Your task to perform on an android device: find snoozed emails in the gmail app Image 0: 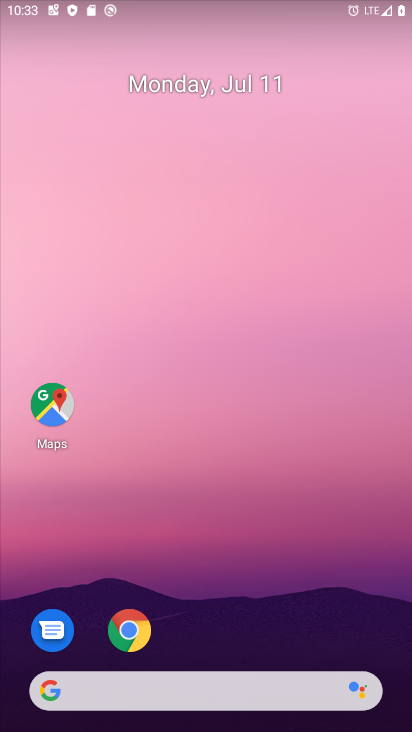
Step 0: click (335, 2)
Your task to perform on an android device: find snoozed emails in the gmail app Image 1: 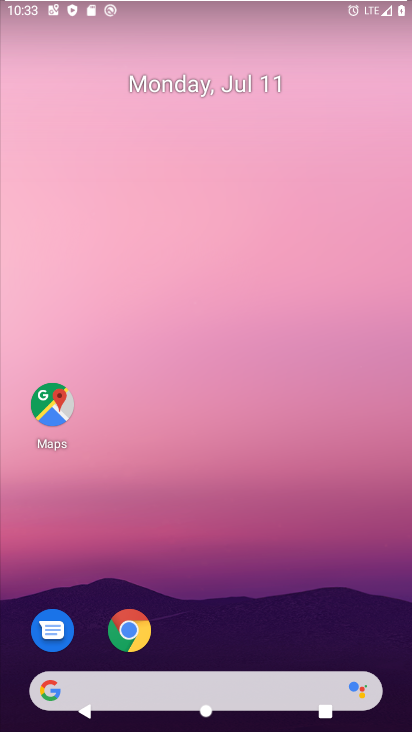
Step 1: drag from (284, 572) to (247, 6)
Your task to perform on an android device: find snoozed emails in the gmail app Image 2: 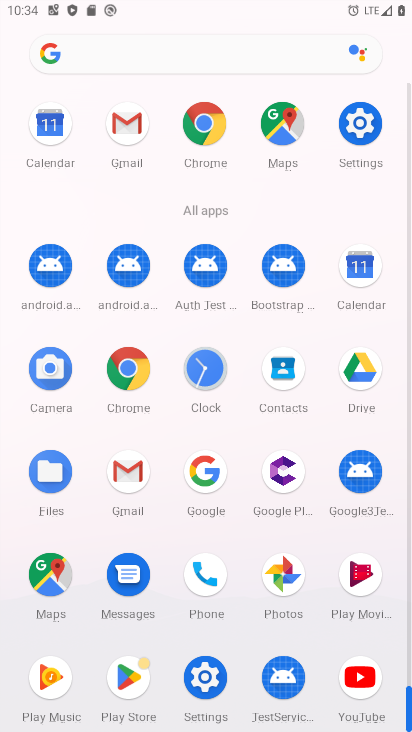
Step 2: click (123, 136)
Your task to perform on an android device: find snoozed emails in the gmail app Image 3: 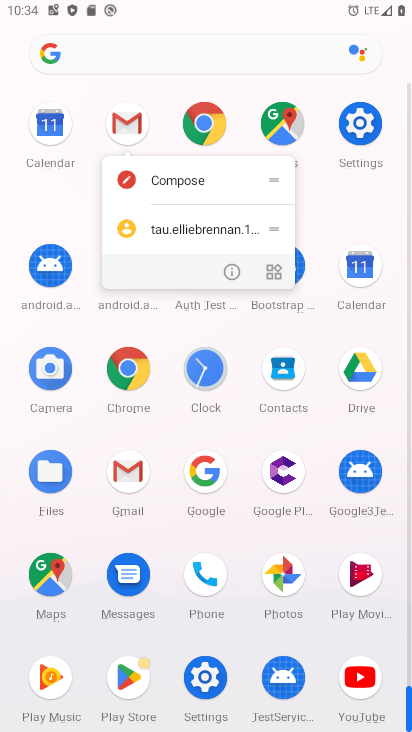
Step 3: click (123, 135)
Your task to perform on an android device: find snoozed emails in the gmail app Image 4: 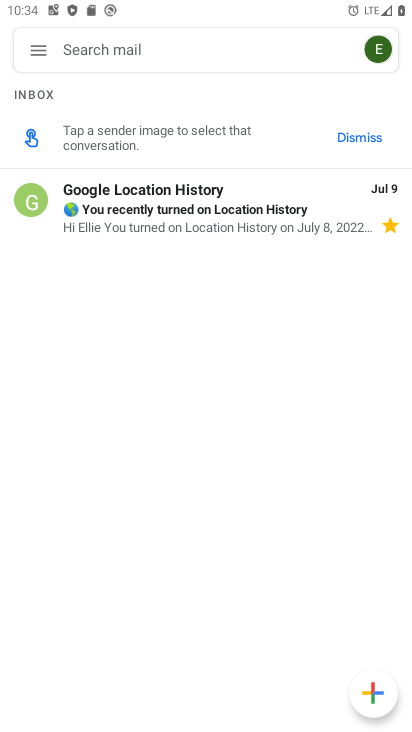
Step 4: click (185, 213)
Your task to perform on an android device: find snoozed emails in the gmail app Image 5: 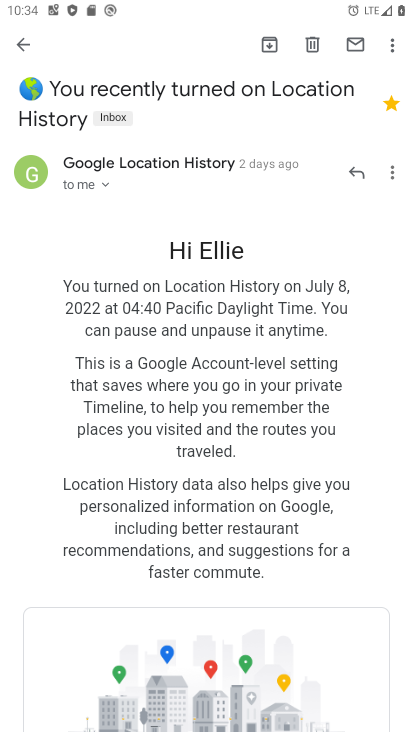
Step 5: drag from (211, 510) to (269, 127)
Your task to perform on an android device: find snoozed emails in the gmail app Image 6: 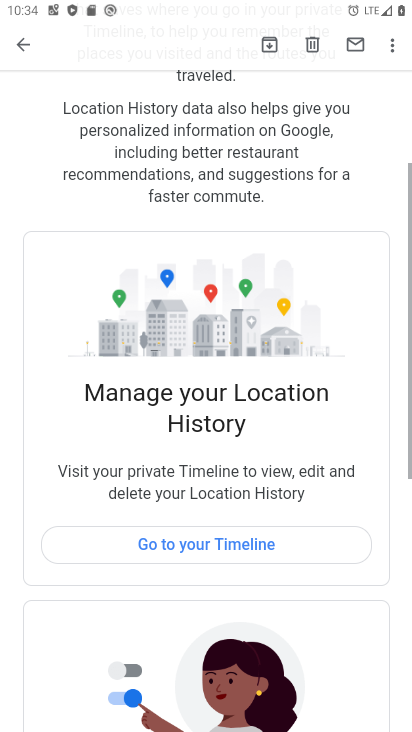
Step 6: drag from (269, 126) to (307, 648)
Your task to perform on an android device: find snoozed emails in the gmail app Image 7: 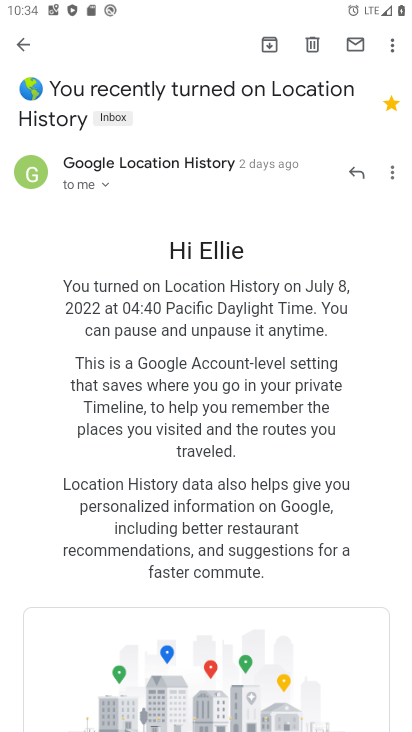
Step 7: drag from (243, 485) to (282, 701)
Your task to perform on an android device: find snoozed emails in the gmail app Image 8: 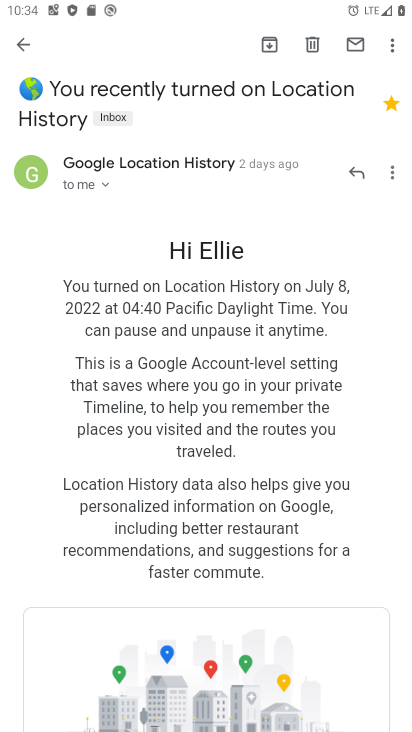
Step 8: click (393, 42)
Your task to perform on an android device: find snoozed emails in the gmail app Image 9: 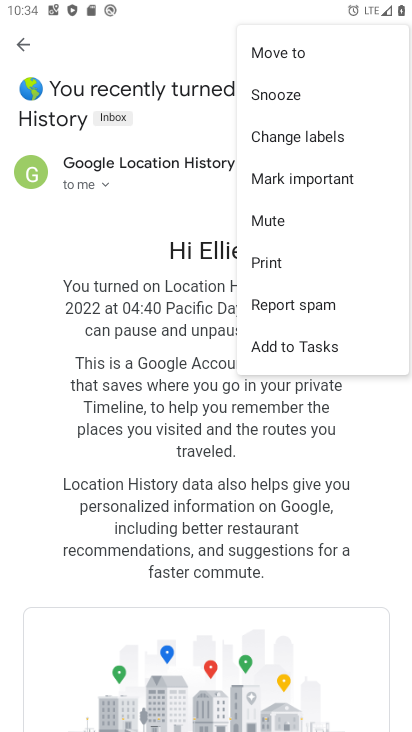
Step 9: click (293, 98)
Your task to perform on an android device: find snoozed emails in the gmail app Image 10: 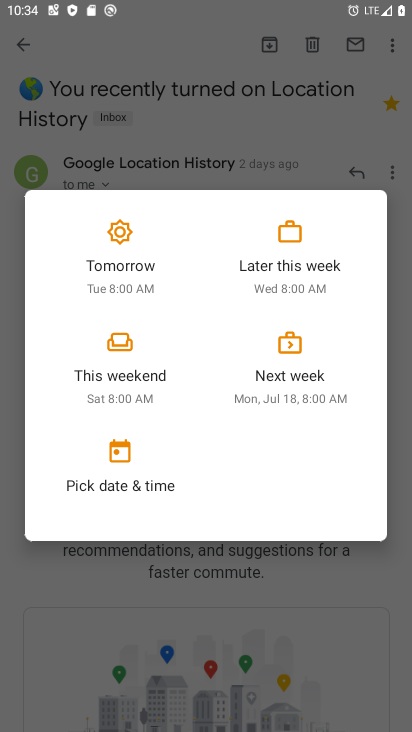
Step 10: click (119, 240)
Your task to perform on an android device: find snoozed emails in the gmail app Image 11: 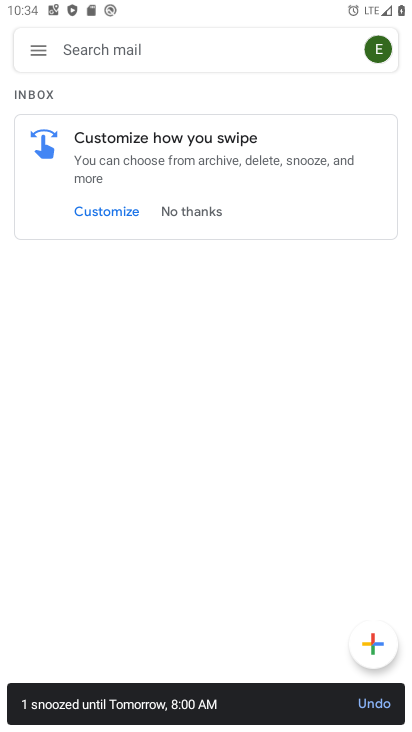
Step 11: task complete